Your task to perform on an android device: open a bookmark in the chrome app Image 0: 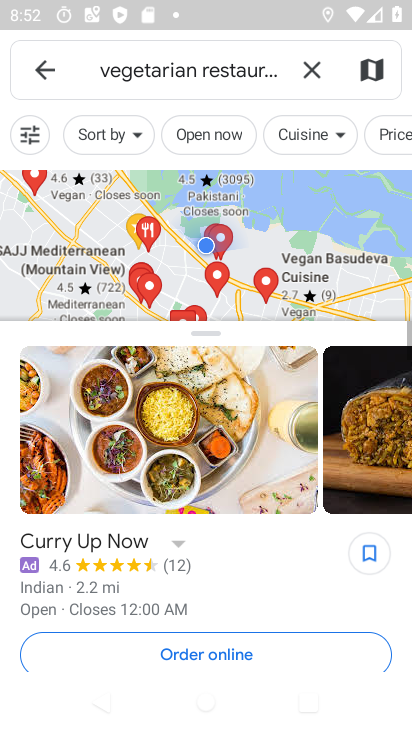
Step 0: press home button
Your task to perform on an android device: open a bookmark in the chrome app Image 1: 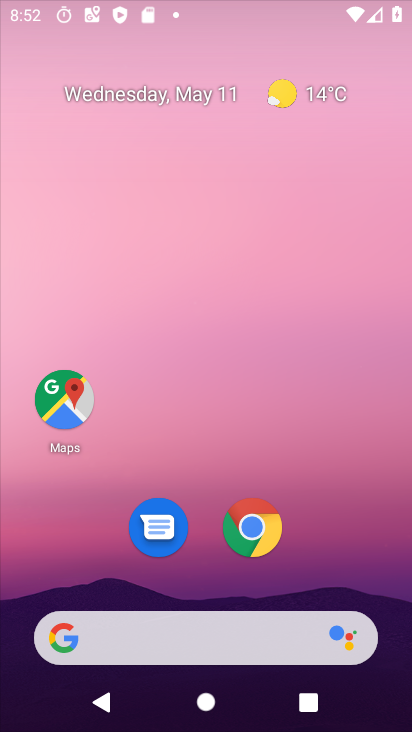
Step 1: drag from (201, 619) to (197, 92)
Your task to perform on an android device: open a bookmark in the chrome app Image 2: 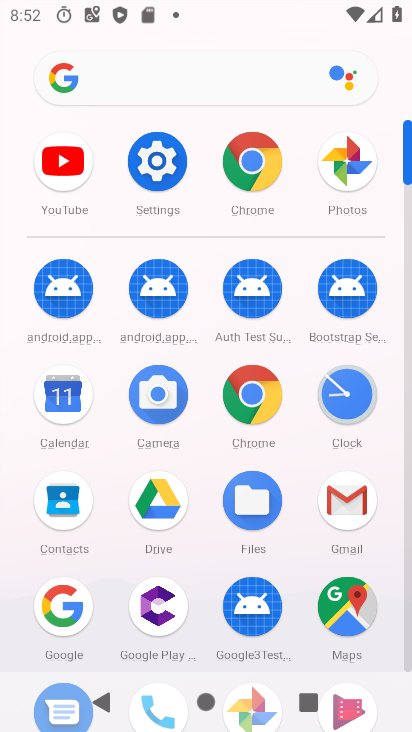
Step 2: click (259, 192)
Your task to perform on an android device: open a bookmark in the chrome app Image 3: 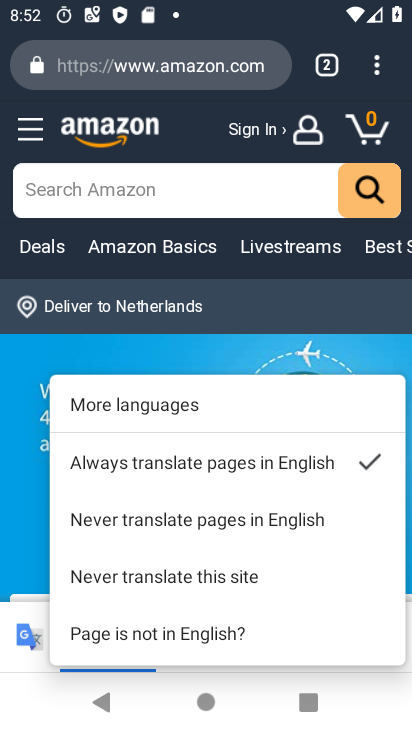
Step 3: click (382, 60)
Your task to perform on an android device: open a bookmark in the chrome app Image 4: 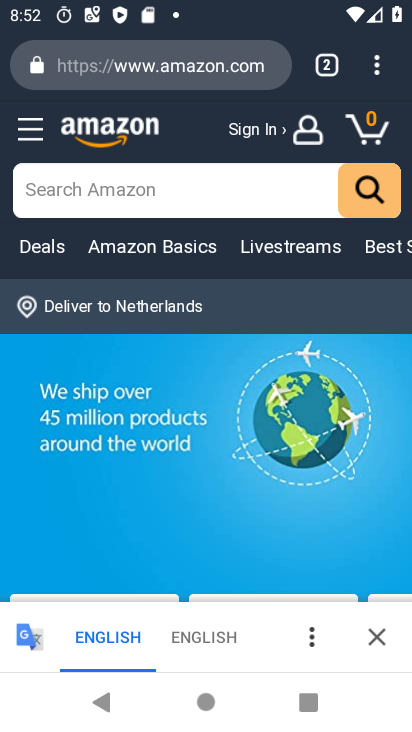
Step 4: click (377, 77)
Your task to perform on an android device: open a bookmark in the chrome app Image 5: 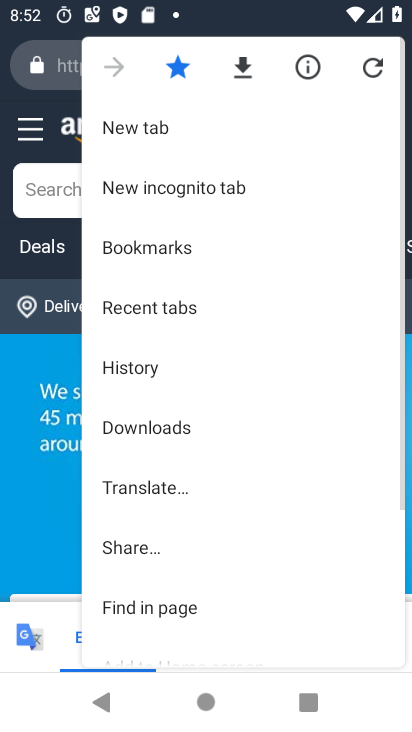
Step 5: drag from (218, 499) to (252, 343)
Your task to perform on an android device: open a bookmark in the chrome app Image 6: 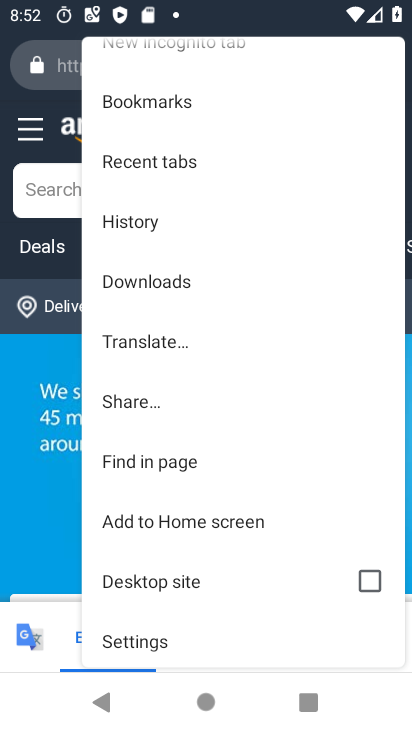
Step 6: click (192, 114)
Your task to perform on an android device: open a bookmark in the chrome app Image 7: 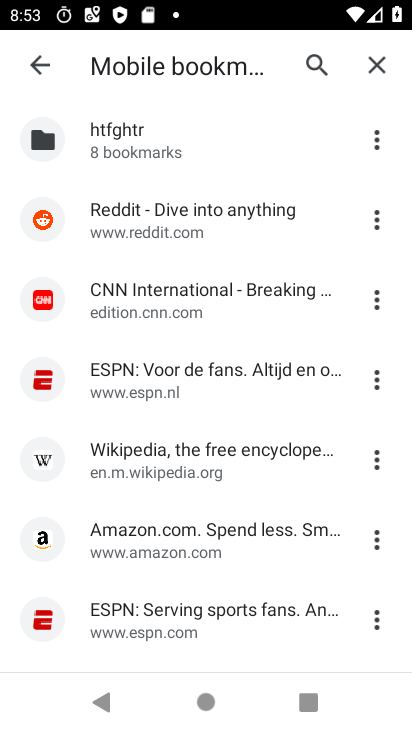
Step 7: click (198, 540)
Your task to perform on an android device: open a bookmark in the chrome app Image 8: 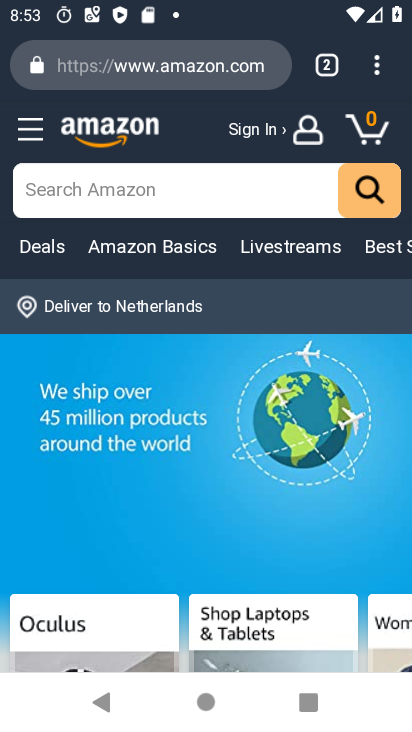
Step 8: click (379, 64)
Your task to perform on an android device: open a bookmark in the chrome app Image 9: 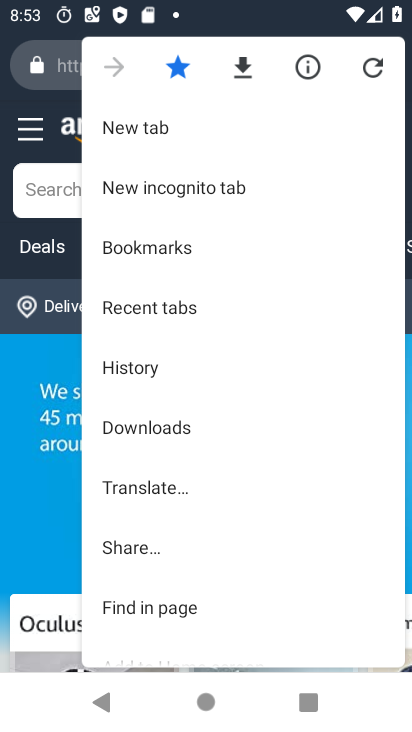
Step 9: click (192, 244)
Your task to perform on an android device: open a bookmark in the chrome app Image 10: 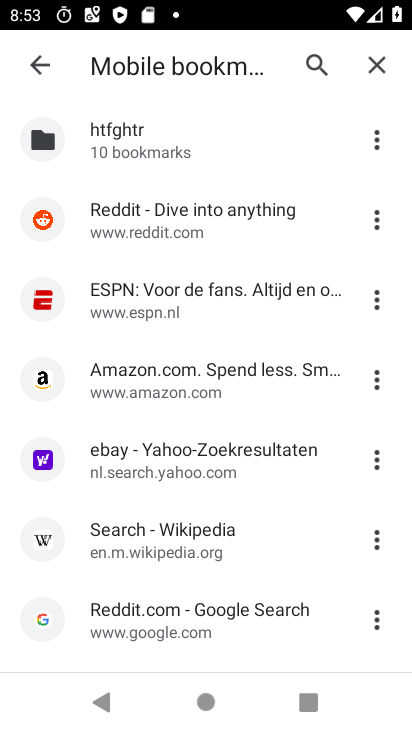
Step 10: task complete